Your task to perform on an android device: Open sound settings Image 0: 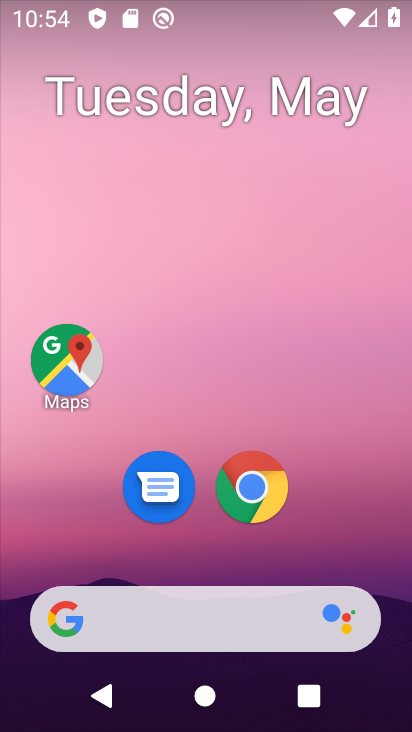
Step 0: drag from (291, 546) to (276, 191)
Your task to perform on an android device: Open sound settings Image 1: 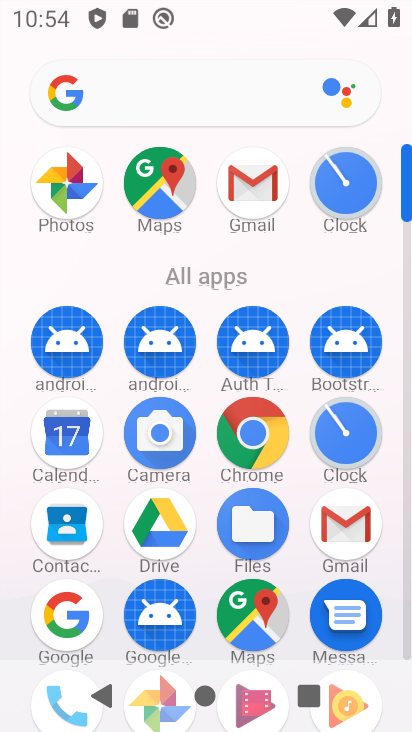
Step 1: drag from (218, 622) to (248, 221)
Your task to perform on an android device: Open sound settings Image 2: 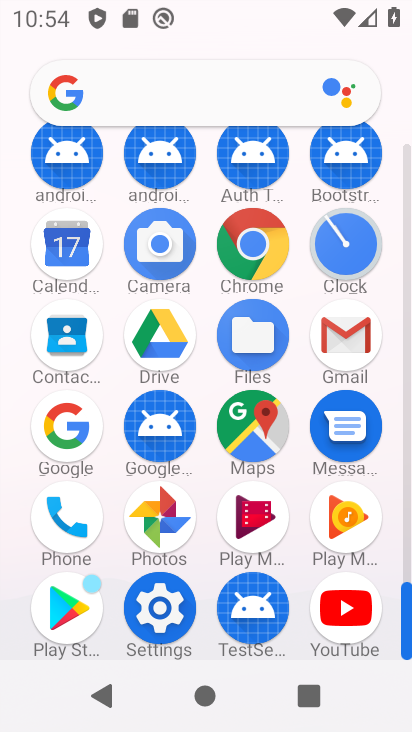
Step 2: click (148, 578)
Your task to perform on an android device: Open sound settings Image 3: 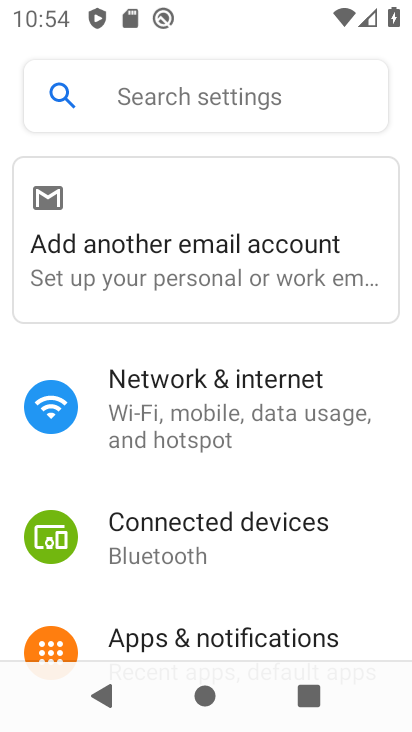
Step 3: drag from (237, 603) to (285, 65)
Your task to perform on an android device: Open sound settings Image 4: 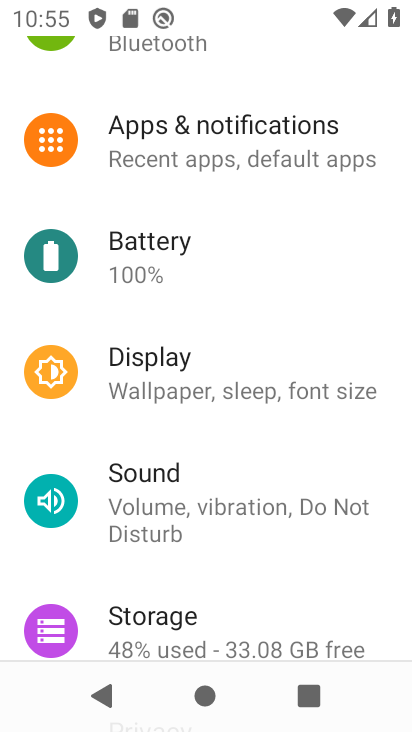
Step 4: click (168, 486)
Your task to perform on an android device: Open sound settings Image 5: 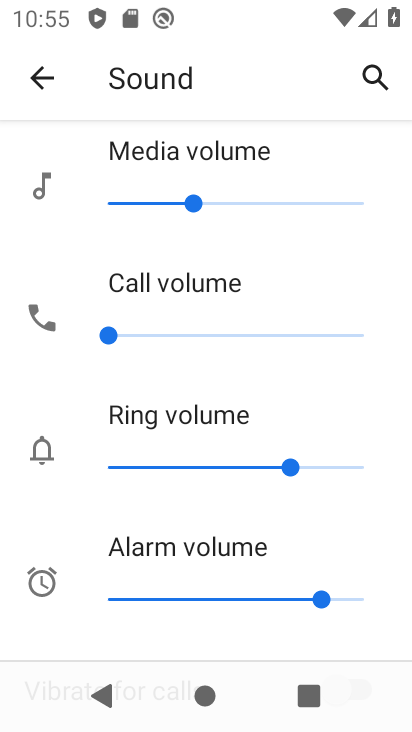
Step 5: task complete